Your task to perform on an android device: install app "VLC for Android" Image 0: 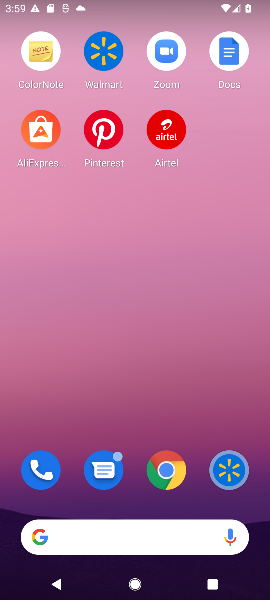
Step 0: drag from (122, 497) to (126, 199)
Your task to perform on an android device: install app "VLC for Android" Image 1: 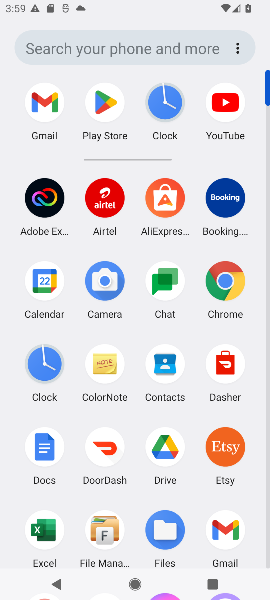
Step 1: click (103, 96)
Your task to perform on an android device: install app "VLC for Android" Image 2: 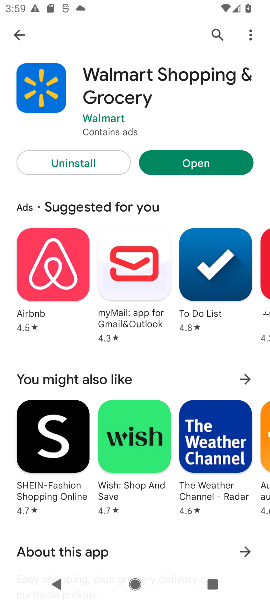
Step 2: click (20, 31)
Your task to perform on an android device: install app "VLC for Android" Image 3: 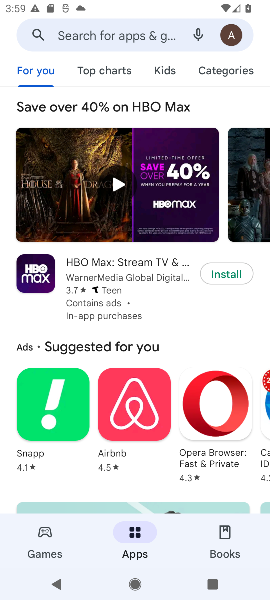
Step 3: click (85, 19)
Your task to perform on an android device: install app "VLC for Android" Image 4: 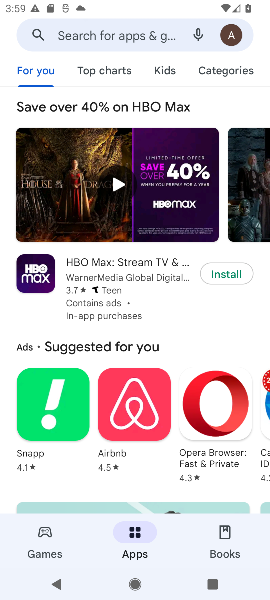
Step 4: click (85, 27)
Your task to perform on an android device: install app "VLC for Android" Image 5: 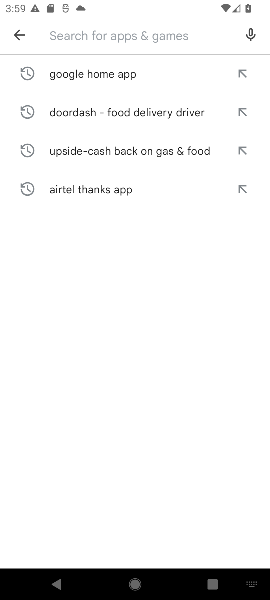
Step 5: type "VLC for Android "
Your task to perform on an android device: install app "VLC for Android" Image 6: 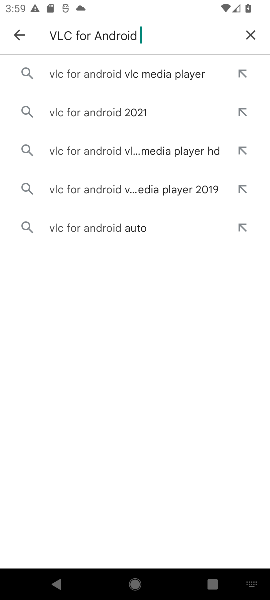
Step 6: click (89, 82)
Your task to perform on an android device: install app "VLC for Android" Image 7: 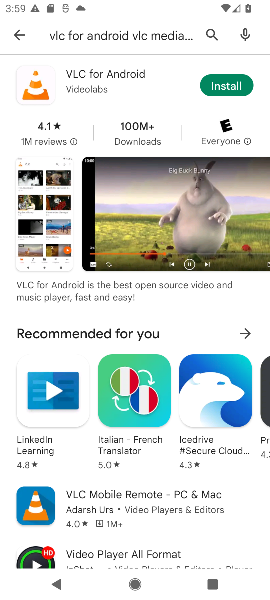
Step 7: click (230, 82)
Your task to perform on an android device: install app "VLC for Android" Image 8: 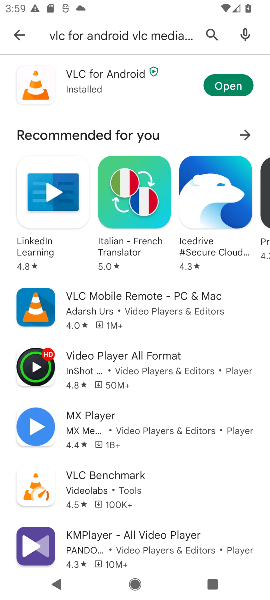
Step 8: click (233, 89)
Your task to perform on an android device: install app "VLC for Android" Image 9: 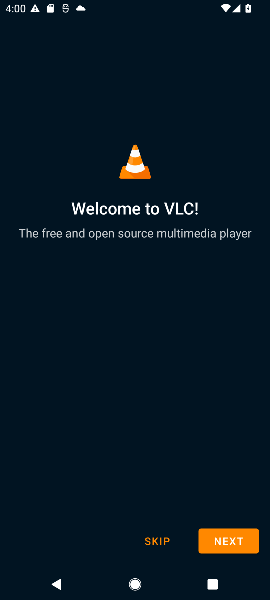
Step 9: task complete